Your task to perform on an android device: turn off smart reply in the gmail app Image 0: 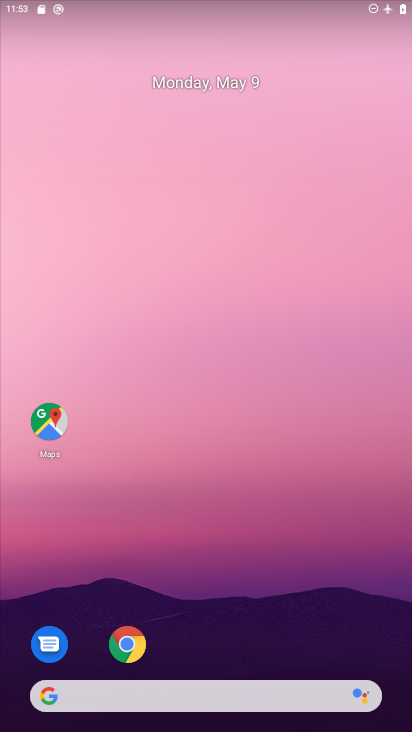
Step 0: drag from (221, 552) to (218, 103)
Your task to perform on an android device: turn off smart reply in the gmail app Image 1: 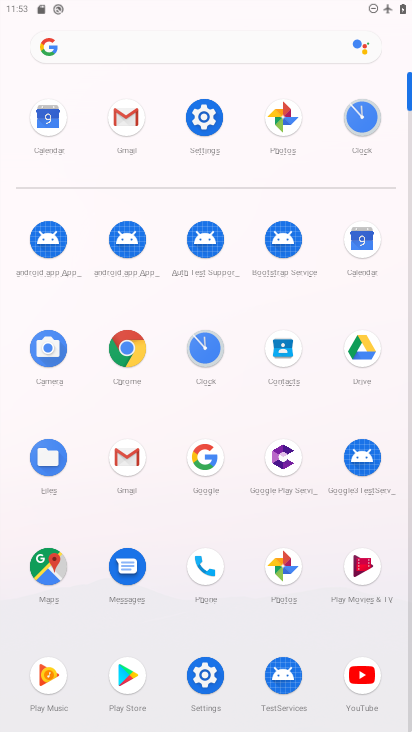
Step 1: click (125, 141)
Your task to perform on an android device: turn off smart reply in the gmail app Image 2: 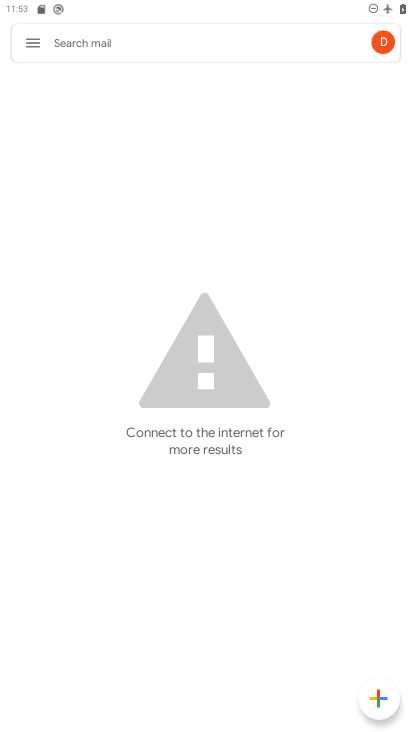
Step 2: click (41, 47)
Your task to perform on an android device: turn off smart reply in the gmail app Image 3: 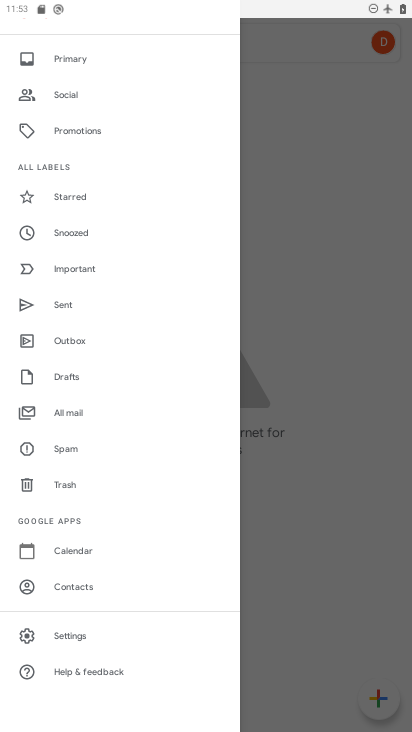
Step 3: click (88, 627)
Your task to perform on an android device: turn off smart reply in the gmail app Image 4: 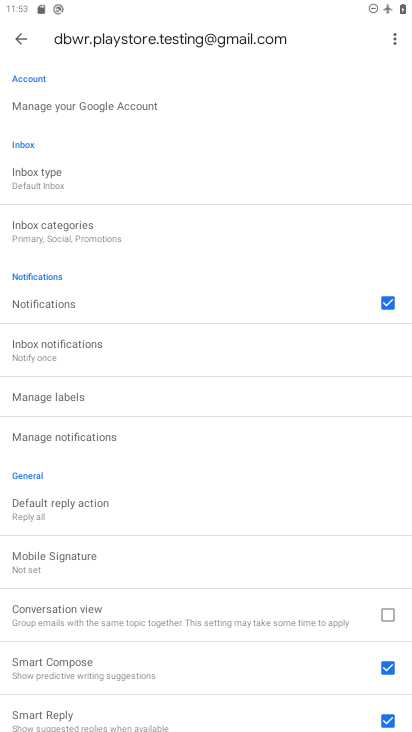
Step 4: drag from (89, 639) to (132, 409)
Your task to perform on an android device: turn off smart reply in the gmail app Image 5: 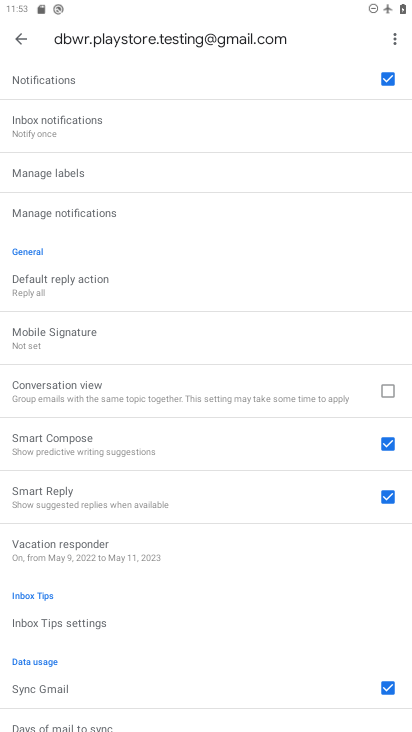
Step 5: click (389, 500)
Your task to perform on an android device: turn off smart reply in the gmail app Image 6: 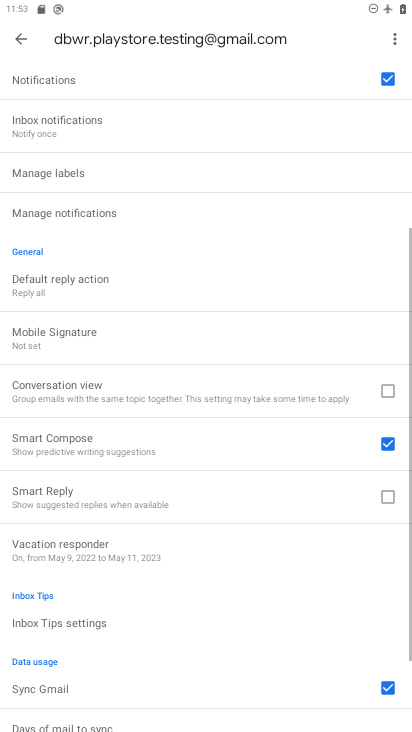
Step 6: task complete